Your task to perform on an android device: install app "YouTube Kids" Image 0: 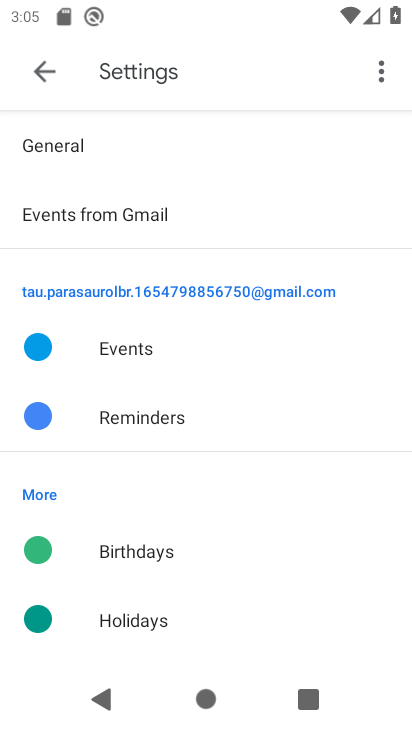
Step 0: press home button
Your task to perform on an android device: install app "YouTube Kids" Image 1: 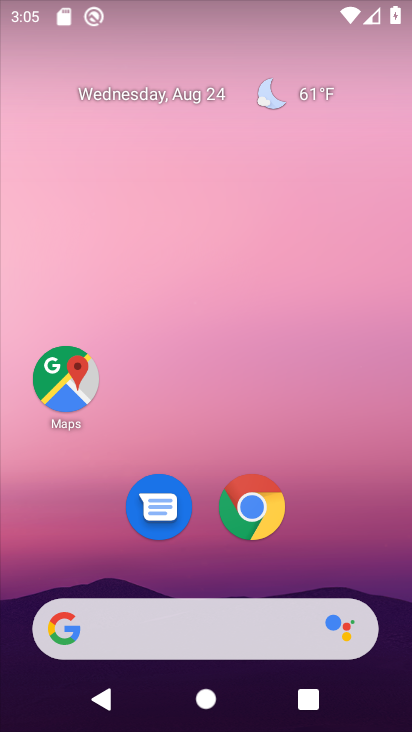
Step 1: drag from (183, 637) to (194, 53)
Your task to perform on an android device: install app "YouTube Kids" Image 2: 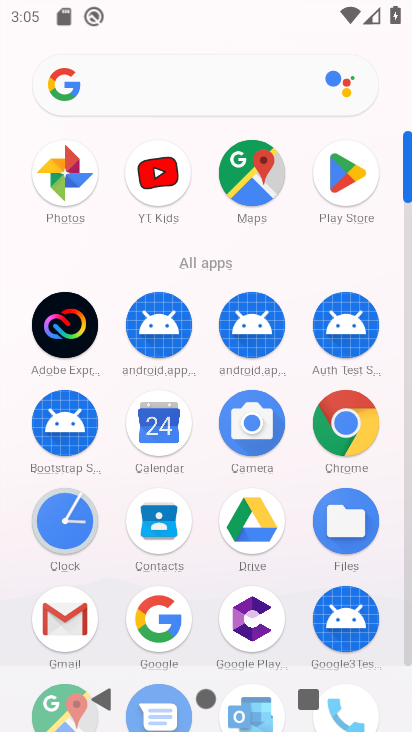
Step 2: click (345, 181)
Your task to perform on an android device: install app "YouTube Kids" Image 3: 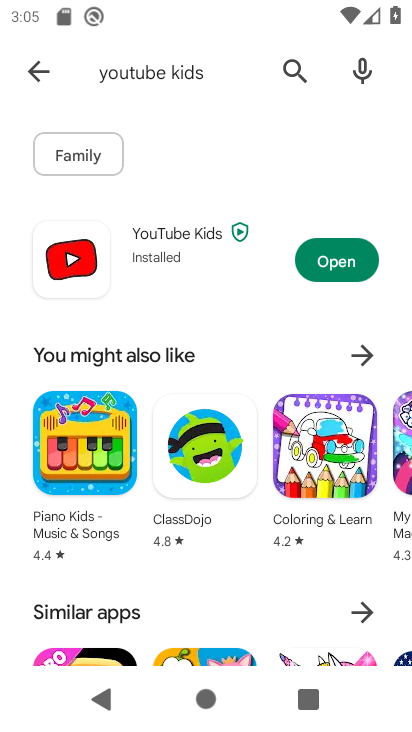
Step 3: task complete